Your task to perform on an android device: Go to notification settings Image 0: 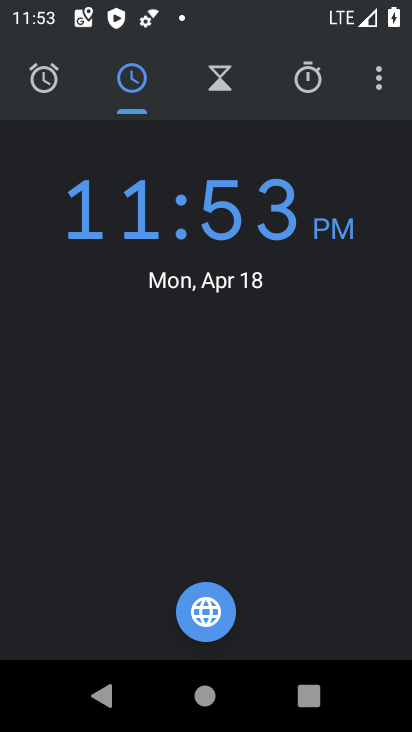
Step 0: press home button
Your task to perform on an android device: Go to notification settings Image 1: 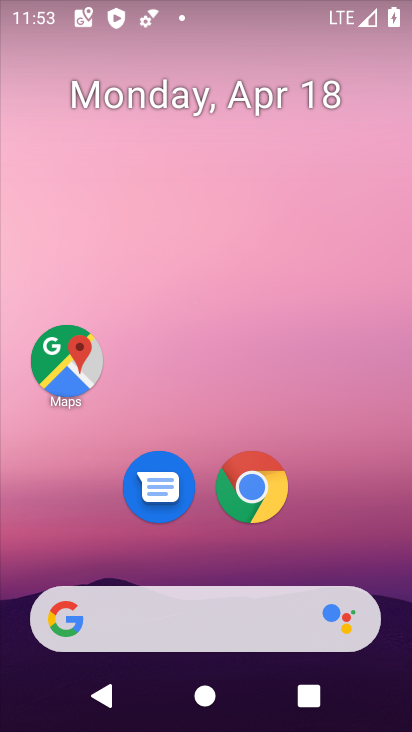
Step 1: drag from (195, 527) to (305, 12)
Your task to perform on an android device: Go to notification settings Image 2: 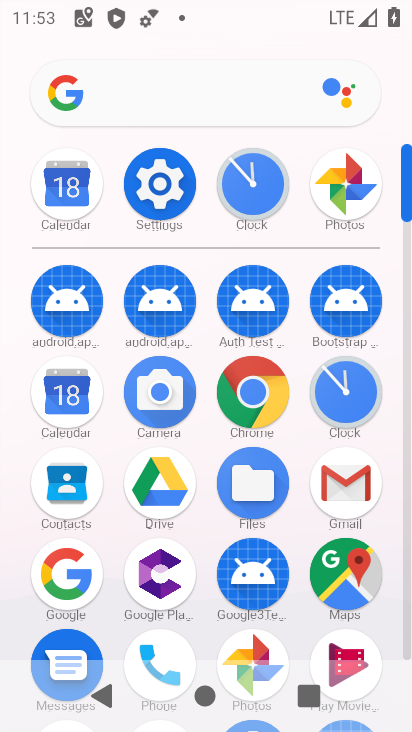
Step 2: click (158, 187)
Your task to perform on an android device: Go to notification settings Image 3: 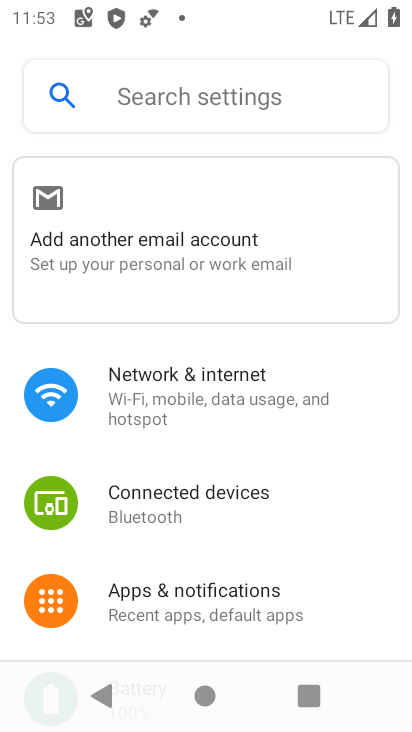
Step 3: drag from (207, 522) to (171, 289)
Your task to perform on an android device: Go to notification settings Image 4: 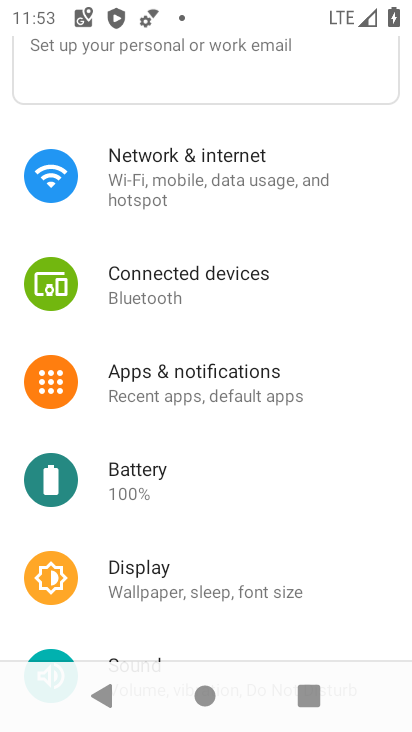
Step 4: click (170, 374)
Your task to perform on an android device: Go to notification settings Image 5: 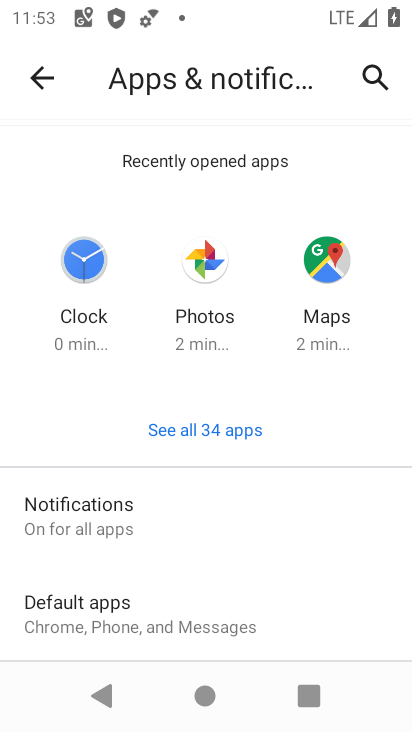
Step 5: task complete